Your task to perform on an android device: change the upload size in google photos Image 0: 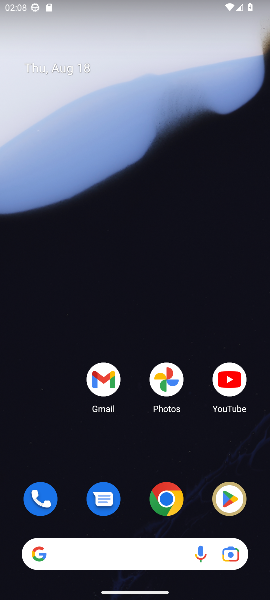
Step 0: click (161, 373)
Your task to perform on an android device: change the upload size in google photos Image 1: 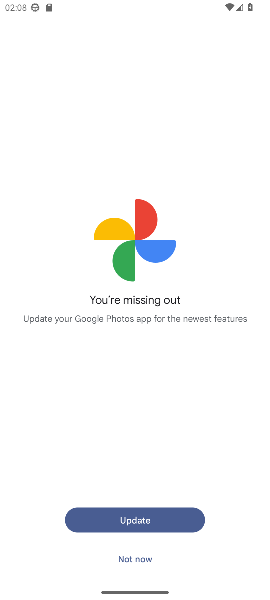
Step 1: click (147, 518)
Your task to perform on an android device: change the upload size in google photos Image 2: 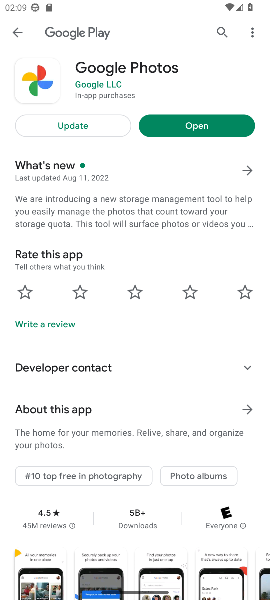
Step 2: click (82, 124)
Your task to perform on an android device: change the upload size in google photos Image 3: 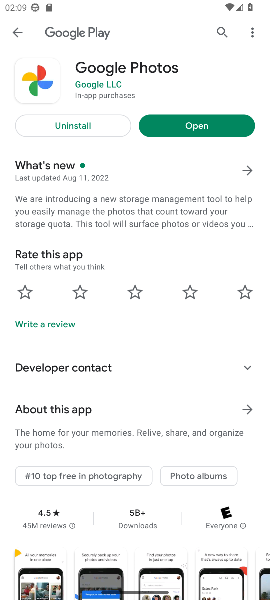
Step 3: click (187, 125)
Your task to perform on an android device: change the upload size in google photos Image 4: 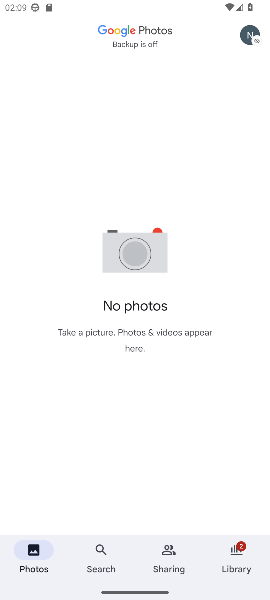
Step 4: click (232, 546)
Your task to perform on an android device: change the upload size in google photos Image 5: 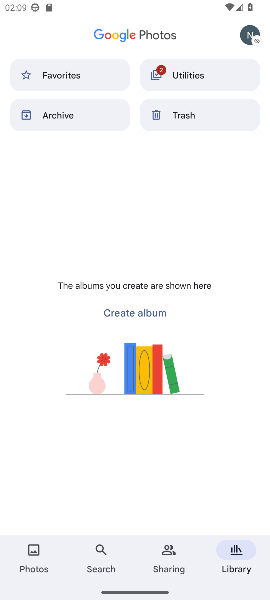
Step 5: click (246, 34)
Your task to perform on an android device: change the upload size in google photos Image 6: 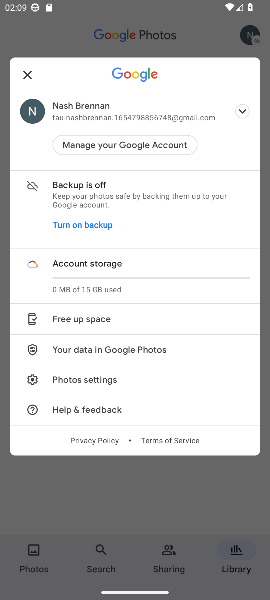
Step 6: click (70, 225)
Your task to perform on an android device: change the upload size in google photos Image 7: 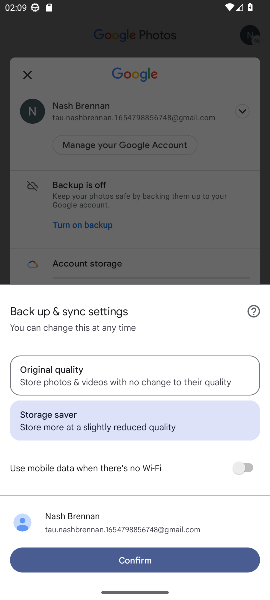
Step 7: click (77, 370)
Your task to perform on an android device: change the upload size in google photos Image 8: 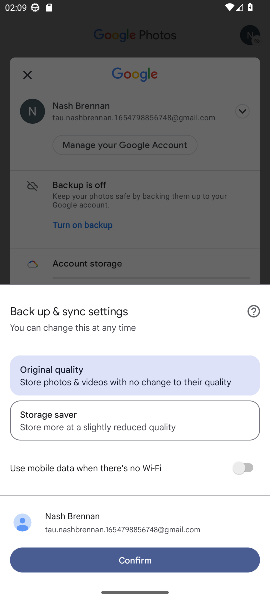
Step 8: click (114, 566)
Your task to perform on an android device: change the upload size in google photos Image 9: 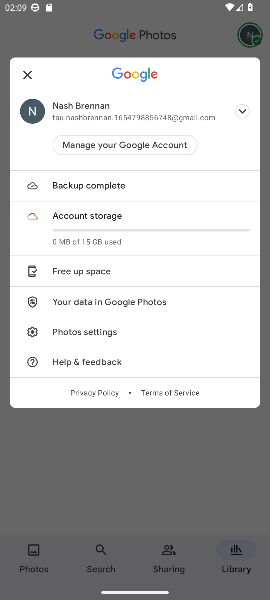
Step 9: click (91, 185)
Your task to perform on an android device: change the upload size in google photos Image 10: 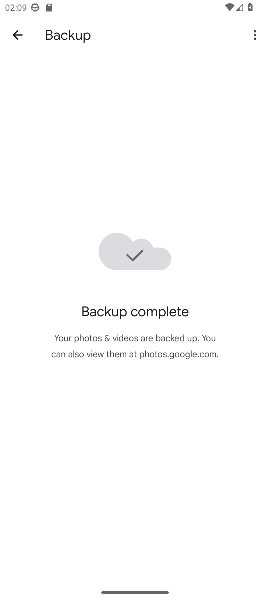
Step 10: click (16, 33)
Your task to perform on an android device: change the upload size in google photos Image 11: 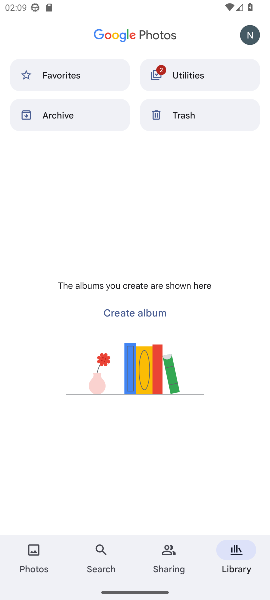
Step 11: click (253, 30)
Your task to perform on an android device: change the upload size in google photos Image 12: 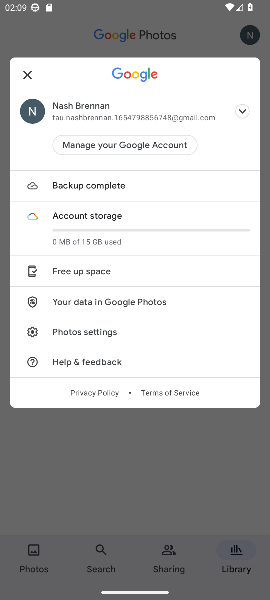
Step 12: click (89, 333)
Your task to perform on an android device: change the upload size in google photos Image 13: 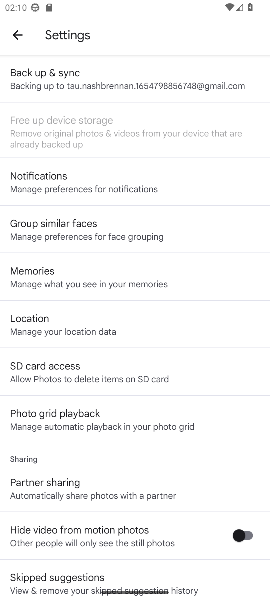
Step 13: click (63, 134)
Your task to perform on an android device: change the upload size in google photos Image 14: 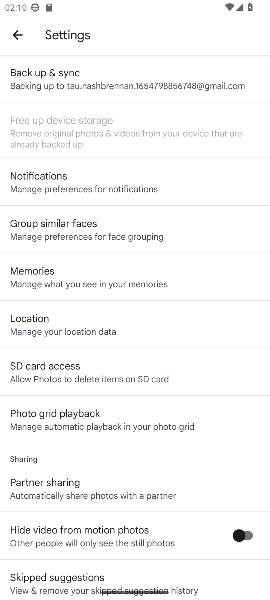
Step 14: click (65, 67)
Your task to perform on an android device: change the upload size in google photos Image 15: 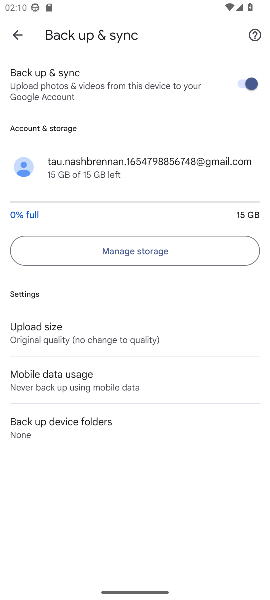
Step 15: click (39, 326)
Your task to perform on an android device: change the upload size in google photos Image 16: 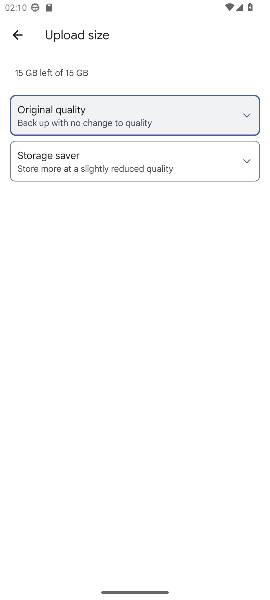
Step 16: click (122, 124)
Your task to perform on an android device: change the upload size in google photos Image 17: 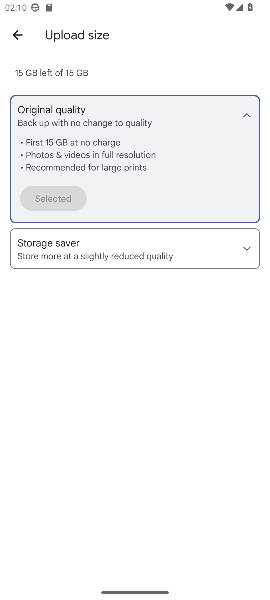
Step 17: task complete